Your task to perform on an android device: Go to Maps Image 0: 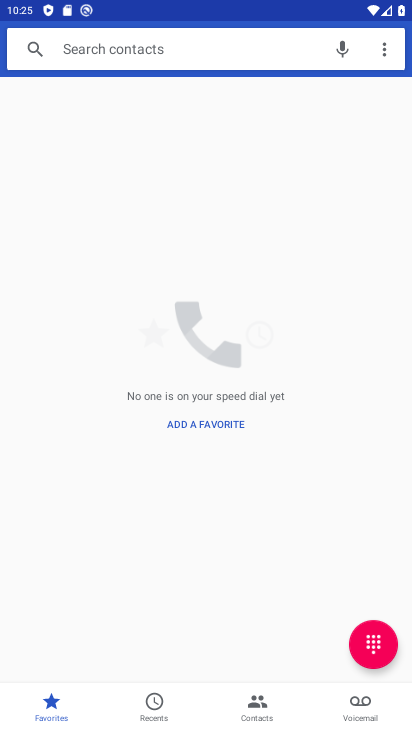
Step 0: press home button
Your task to perform on an android device: Go to Maps Image 1: 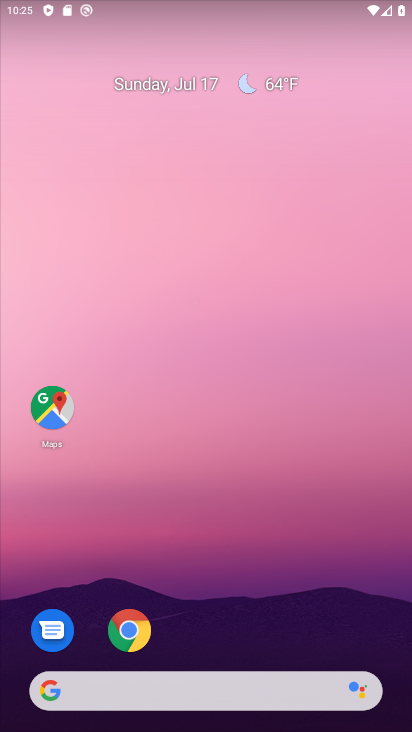
Step 1: click (49, 410)
Your task to perform on an android device: Go to Maps Image 2: 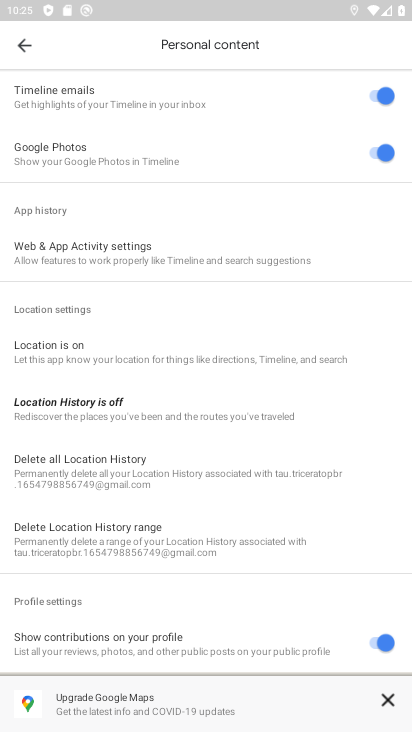
Step 2: task complete